Your task to perform on an android device: turn off location history Image 0: 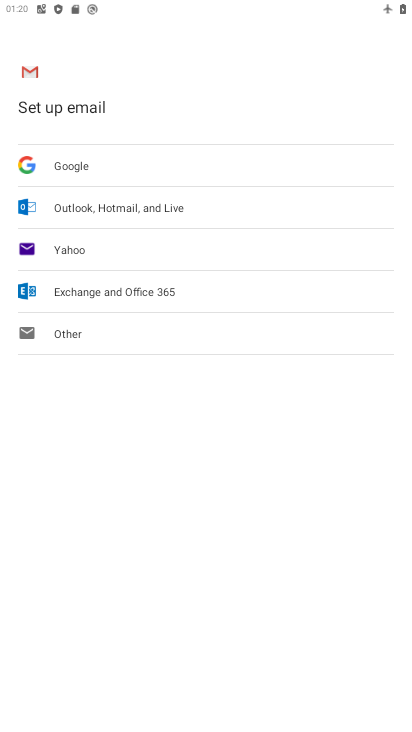
Step 0: press home button
Your task to perform on an android device: turn off location history Image 1: 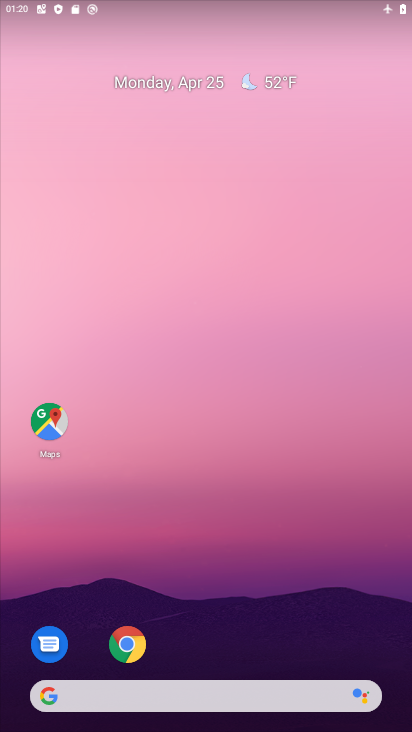
Step 1: click (139, 644)
Your task to perform on an android device: turn off location history Image 2: 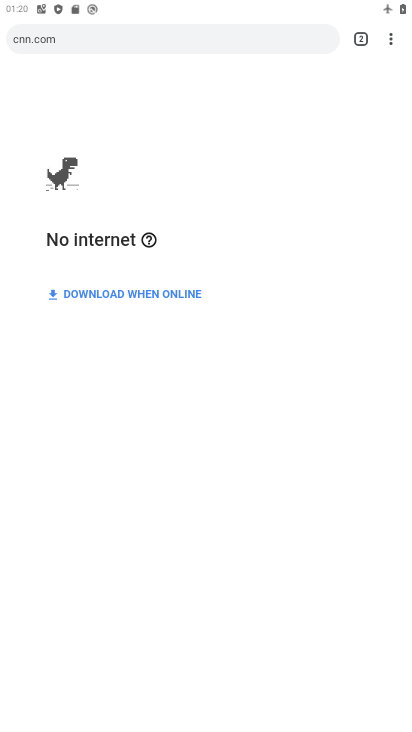
Step 2: press home button
Your task to perform on an android device: turn off location history Image 3: 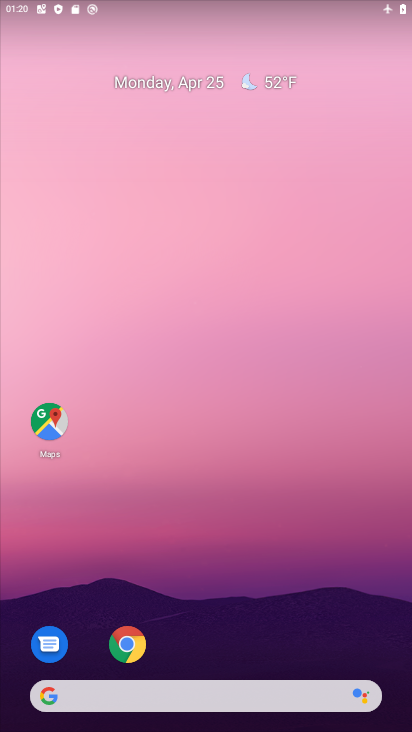
Step 3: drag from (250, 651) to (161, 96)
Your task to perform on an android device: turn off location history Image 4: 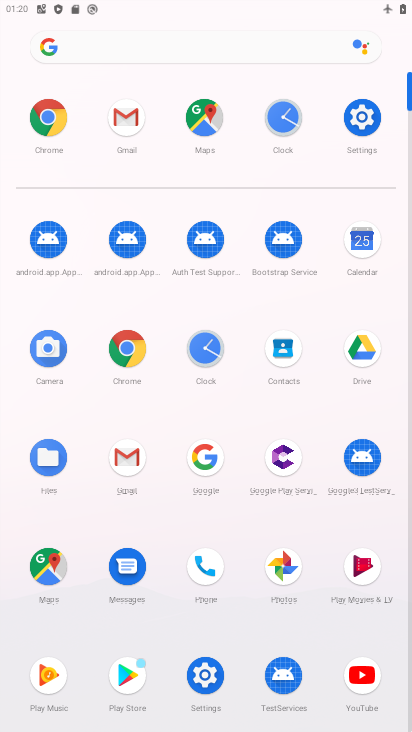
Step 4: click (358, 130)
Your task to perform on an android device: turn off location history Image 5: 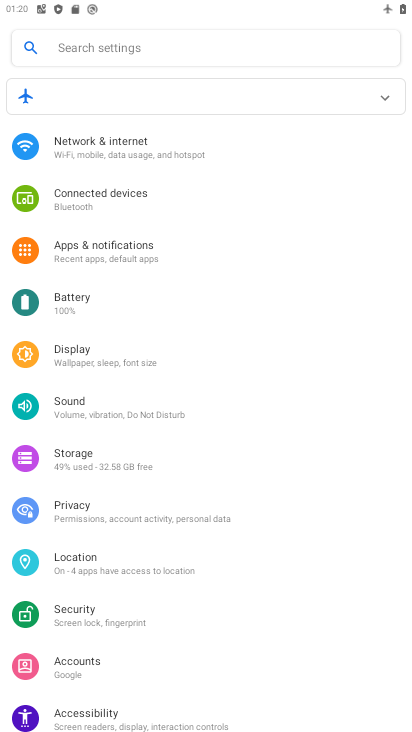
Step 5: click (116, 576)
Your task to perform on an android device: turn off location history Image 6: 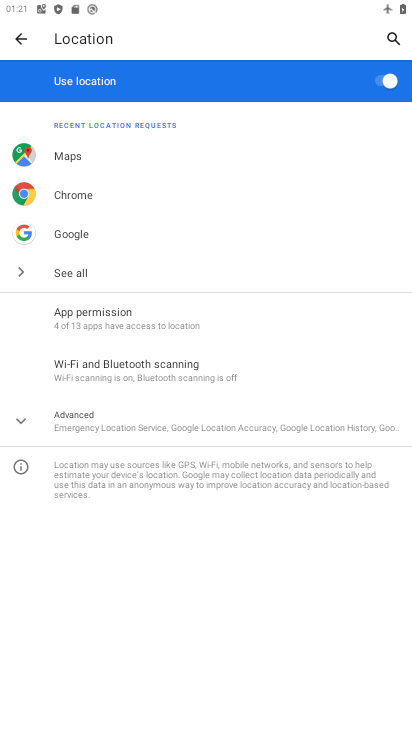
Step 6: click (238, 333)
Your task to perform on an android device: turn off location history Image 7: 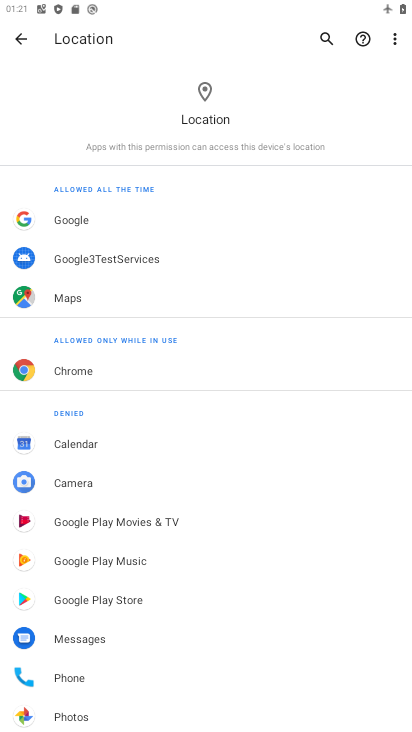
Step 7: task complete